Your task to perform on an android device: Open calendar and show me the second week of next month Image 0: 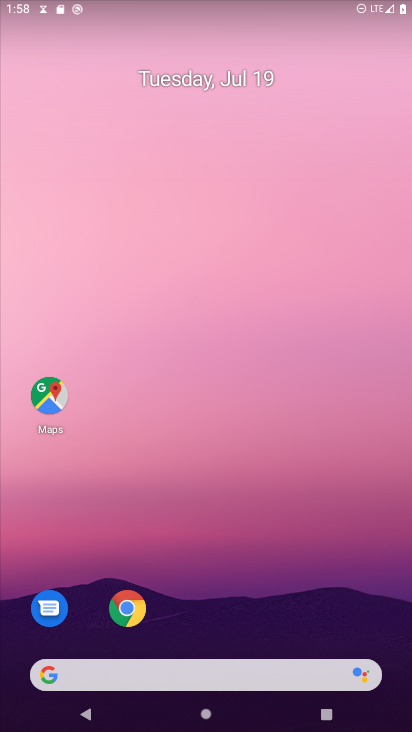
Step 0: drag from (322, 589) to (404, 402)
Your task to perform on an android device: Open calendar and show me the second week of next month Image 1: 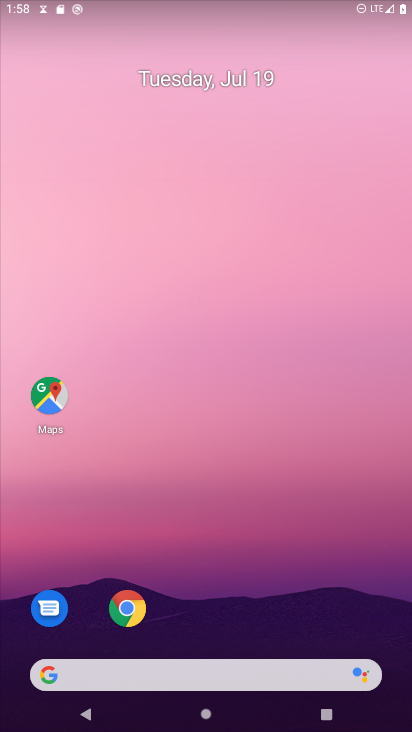
Step 1: drag from (261, 573) to (265, 31)
Your task to perform on an android device: Open calendar and show me the second week of next month Image 2: 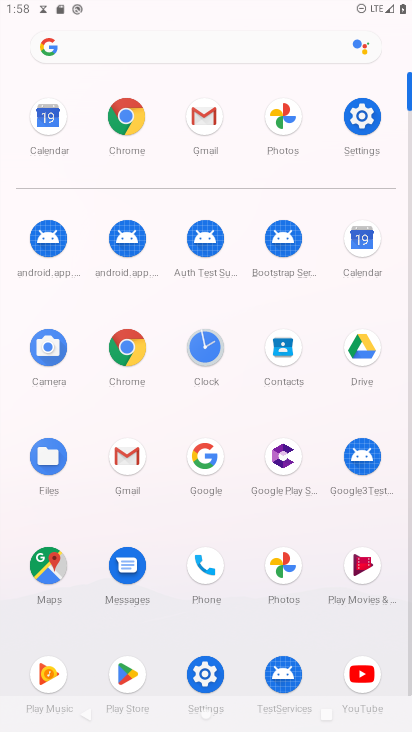
Step 2: click (363, 245)
Your task to perform on an android device: Open calendar and show me the second week of next month Image 3: 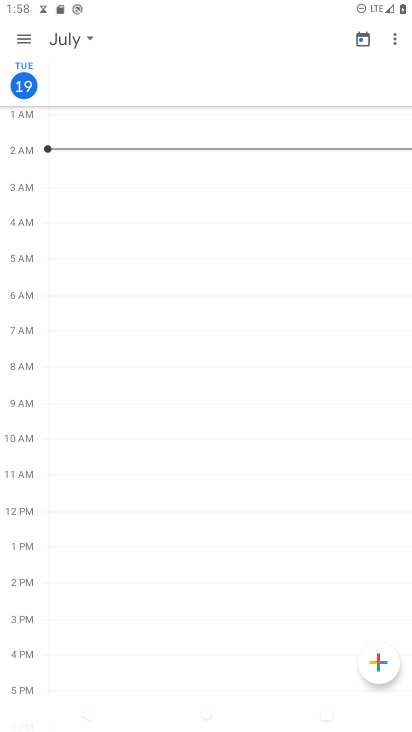
Step 3: click (92, 34)
Your task to perform on an android device: Open calendar and show me the second week of next month Image 4: 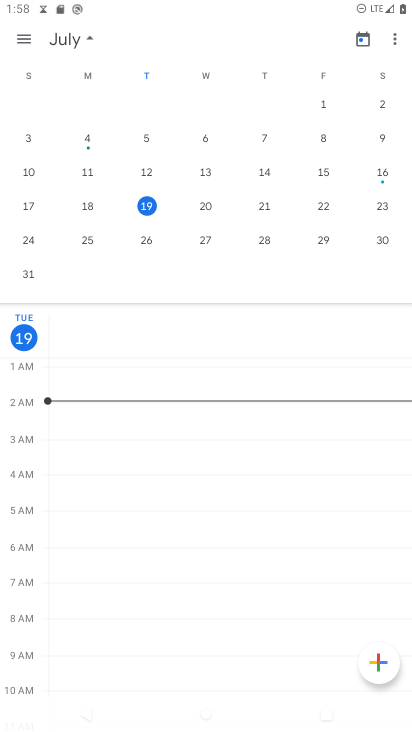
Step 4: drag from (249, 223) to (5, 201)
Your task to perform on an android device: Open calendar and show me the second week of next month Image 5: 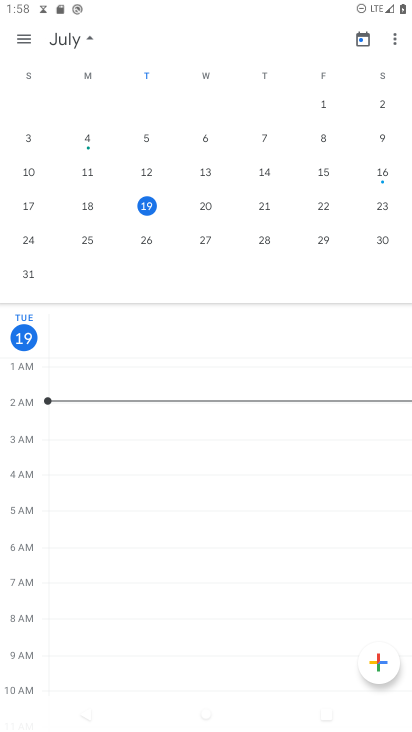
Step 5: drag from (402, 185) to (13, 177)
Your task to perform on an android device: Open calendar and show me the second week of next month Image 6: 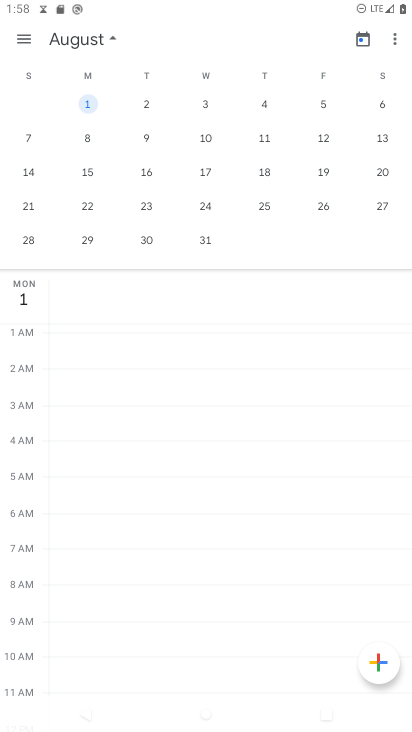
Step 6: click (207, 142)
Your task to perform on an android device: Open calendar and show me the second week of next month Image 7: 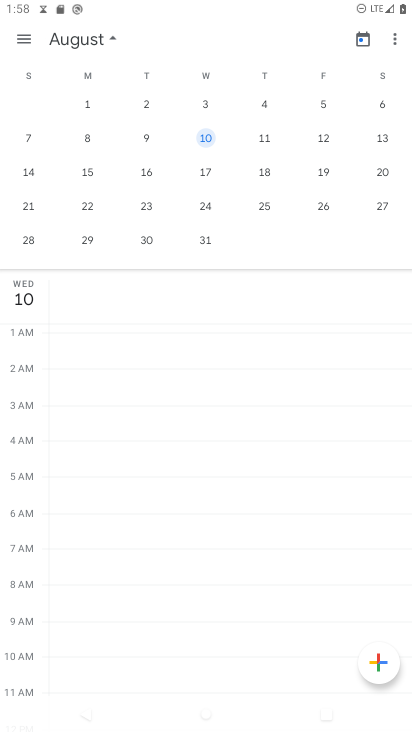
Step 7: click (32, 40)
Your task to perform on an android device: Open calendar and show me the second week of next month Image 8: 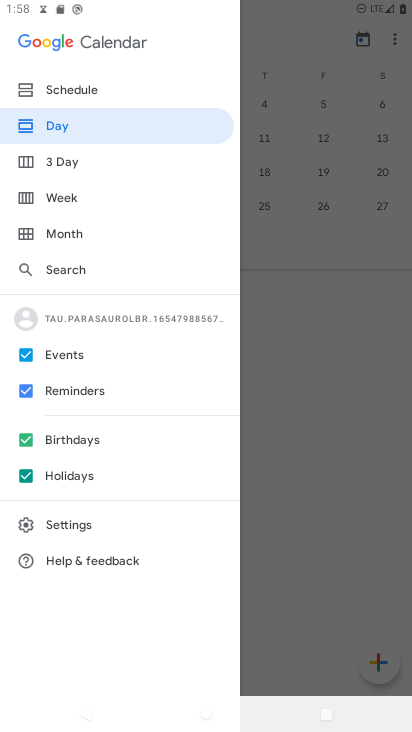
Step 8: click (97, 191)
Your task to perform on an android device: Open calendar and show me the second week of next month Image 9: 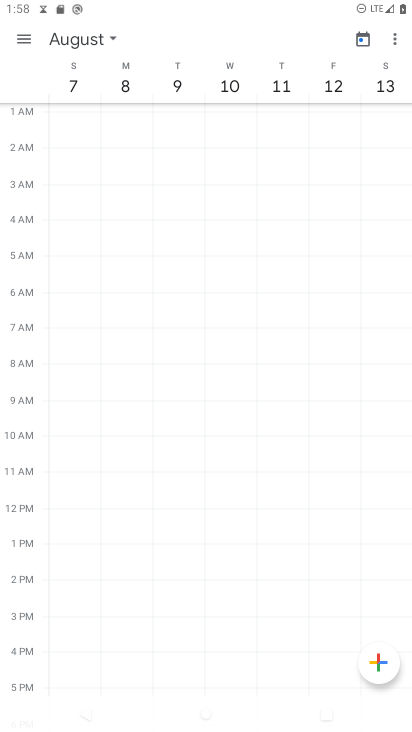
Step 9: task complete